Your task to perform on an android device: turn on airplane mode Image 0: 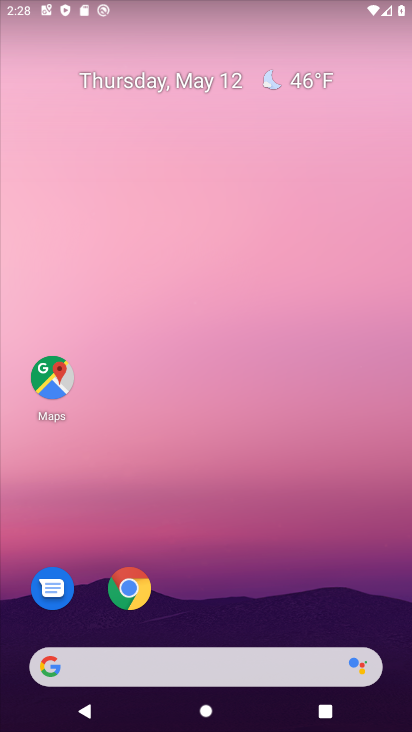
Step 0: drag from (273, 10) to (335, 489)
Your task to perform on an android device: turn on airplane mode Image 1: 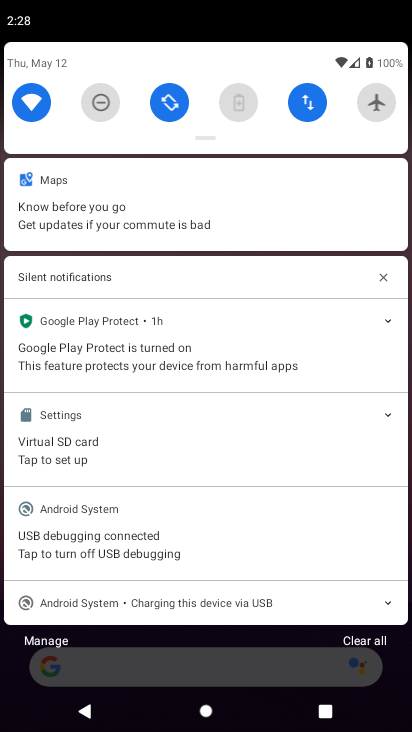
Step 1: click (383, 103)
Your task to perform on an android device: turn on airplane mode Image 2: 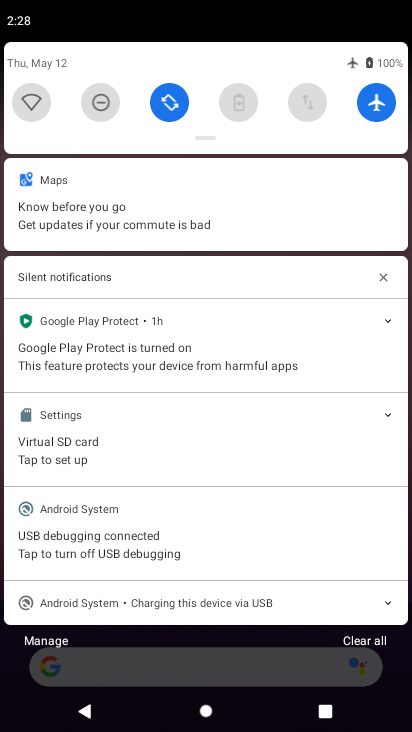
Step 2: task complete